Your task to perform on an android device: Open Chrome and go to settings Image 0: 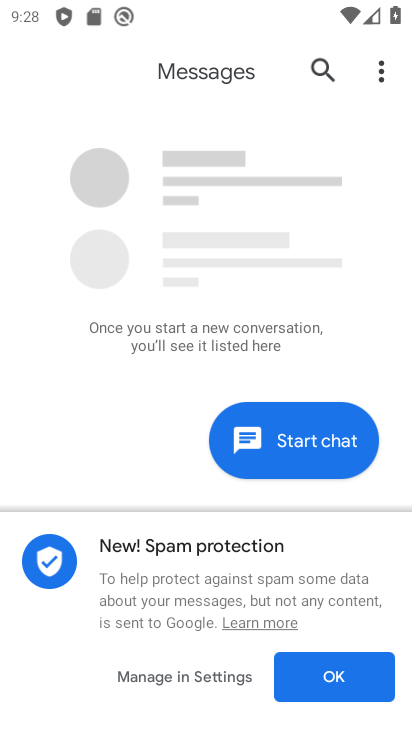
Step 0: press back button
Your task to perform on an android device: Open Chrome and go to settings Image 1: 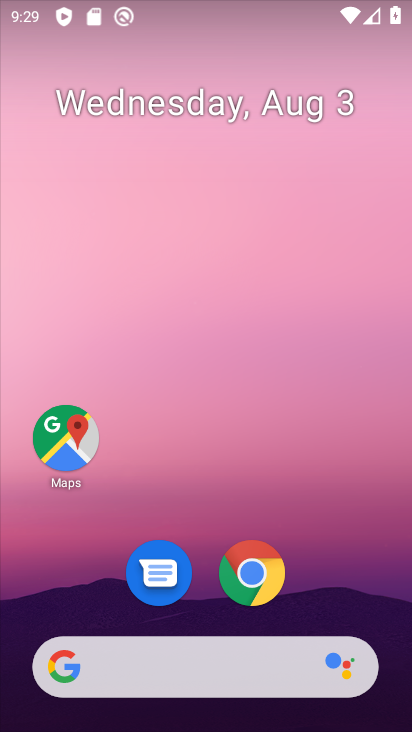
Step 1: click (275, 576)
Your task to perform on an android device: Open Chrome and go to settings Image 2: 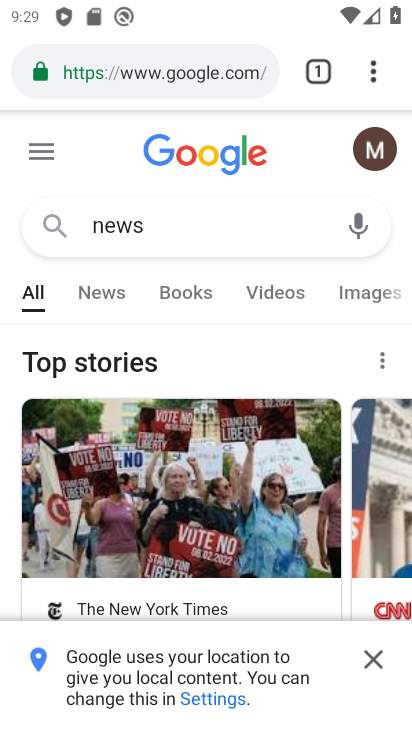
Step 2: task complete